Your task to perform on an android device: empty trash in the gmail app Image 0: 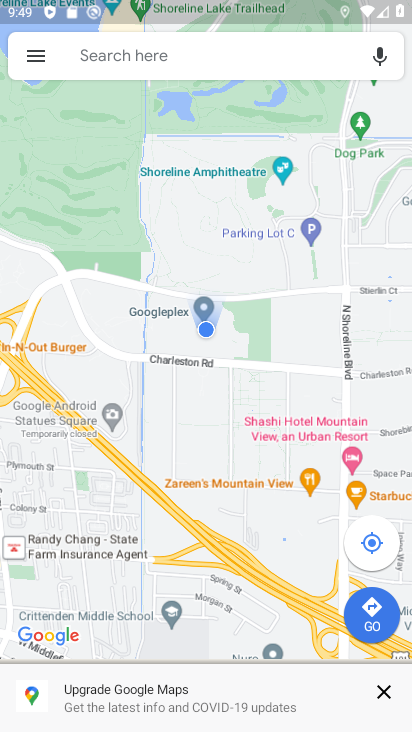
Step 0: press back button
Your task to perform on an android device: empty trash in the gmail app Image 1: 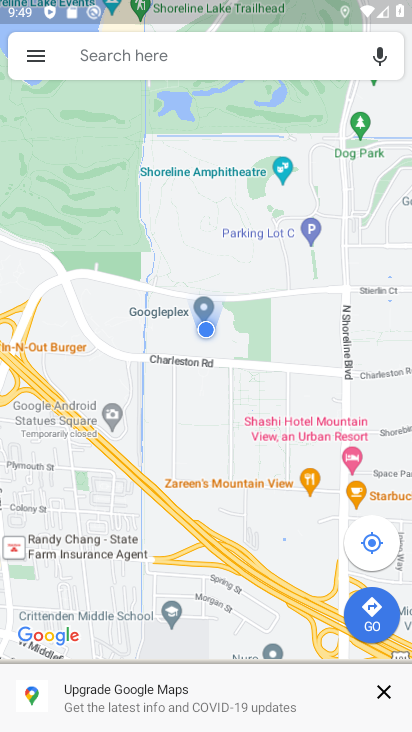
Step 1: press back button
Your task to perform on an android device: empty trash in the gmail app Image 2: 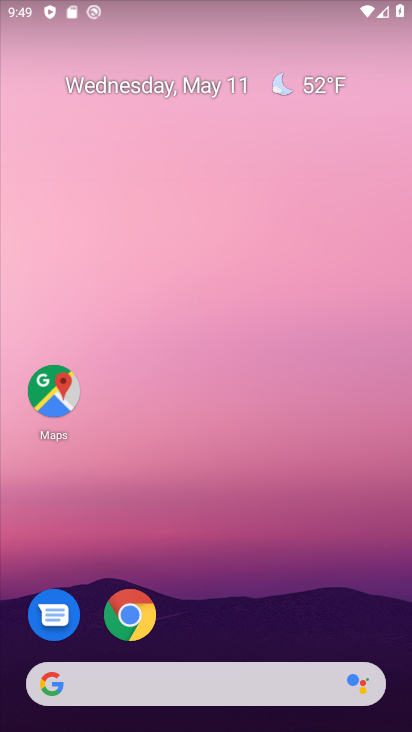
Step 2: drag from (241, 593) to (226, 8)
Your task to perform on an android device: empty trash in the gmail app Image 3: 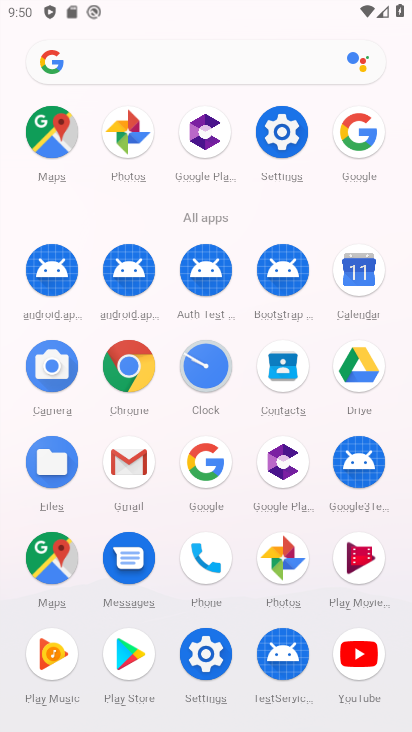
Step 3: click (132, 458)
Your task to perform on an android device: empty trash in the gmail app Image 4: 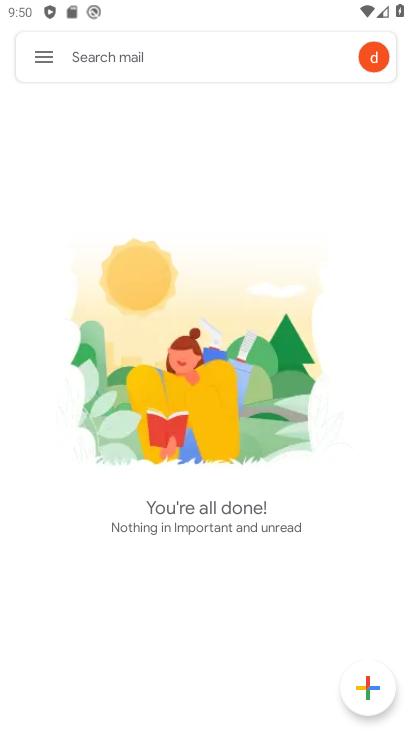
Step 4: click (41, 57)
Your task to perform on an android device: empty trash in the gmail app Image 5: 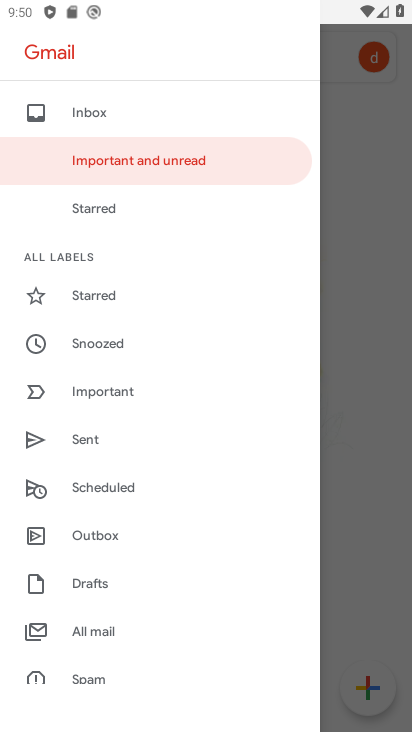
Step 5: drag from (98, 601) to (156, 515)
Your task to perform on an android device: empty trash in the gmail app Image 6: 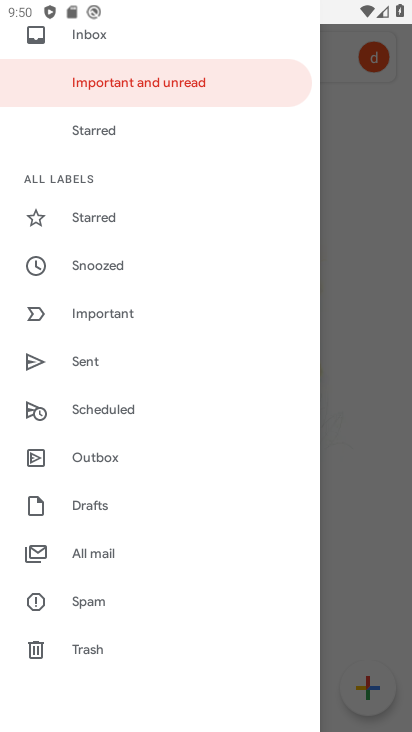
Step 6: drag from (87, 572) to (152, 452)
Your task to perform on an android device: empty trash in the gmail app Image 7: 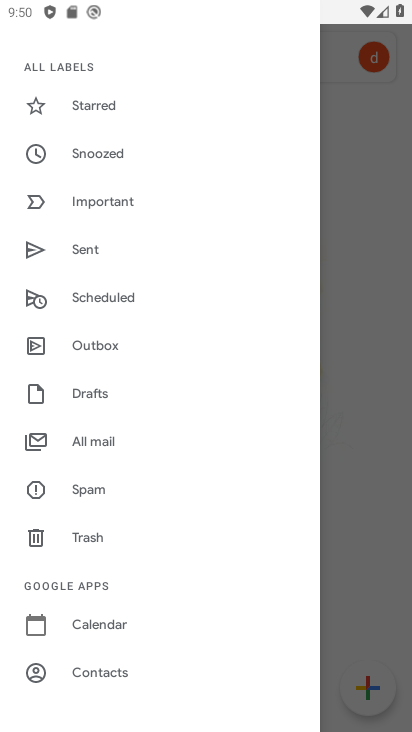
Step 7: click (93, 541)
Your task to perform on an android device: empty trash in the gmail app Image 8: 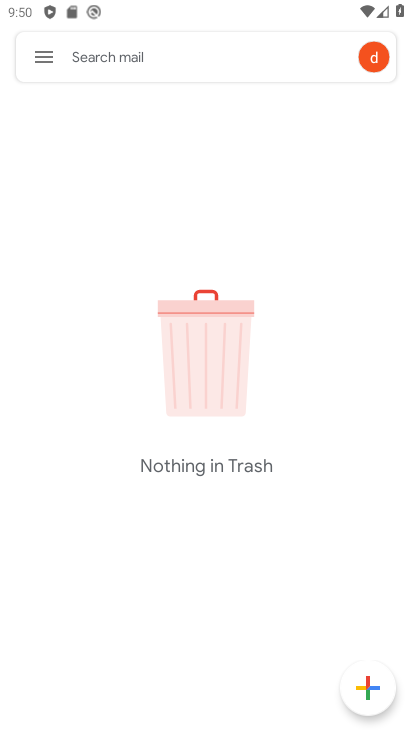
Step 8: task complete